Your task to perform on an android device: How big is a dinosaur? Image 0: 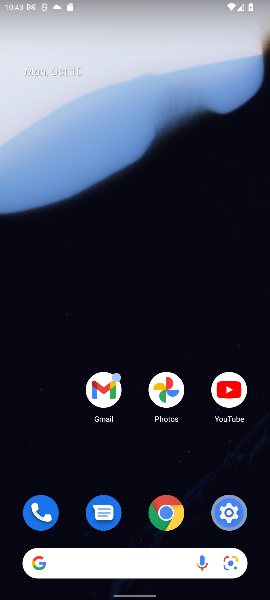
Step 0: drag from (54, 295) to (36, 15)
Your task to perform on an android device: How big is a dinosaur? Image 1: 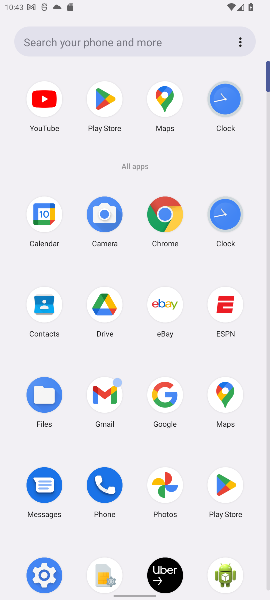
Step 1: click (171, 390)
Your task to perform on an android device: How big is a dinosaur? Image 2: 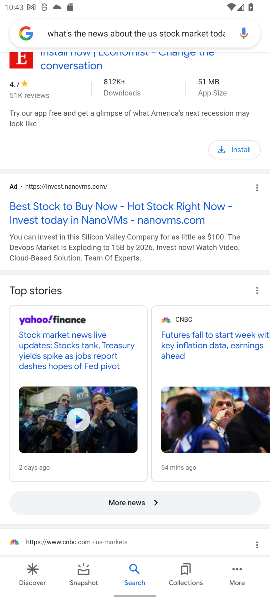
Step 2: click (138, 40)
Your task to perform on an android device: How big is a dinosaur? Image 3: 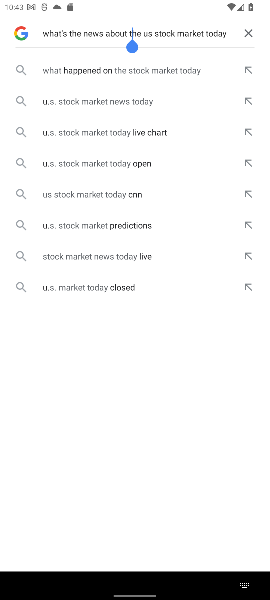
Step 3: click (246, 33)
Your task to perform on an android device: How big is a dinosaur? Image 4: 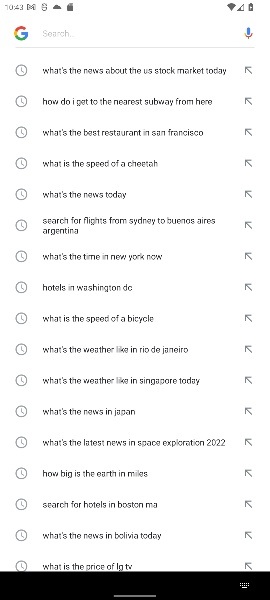
Step 4: type "How big is a dinosaur?"
Your task to perform on an android device: How big is a dinosaur? Image 5: 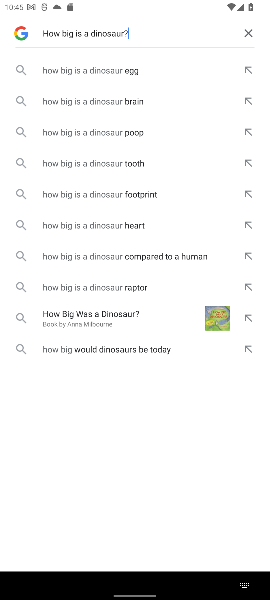
Step 5: click (122, 68)
Your task to perform on an android device: How big is a dinosaur? Image 6: 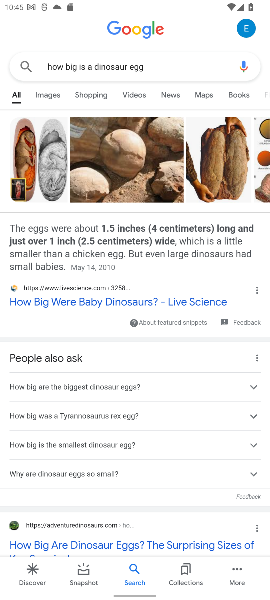
Step 6: task complete